Your task to perform on an android device: toggle show notifications on the lock screen Image 0: 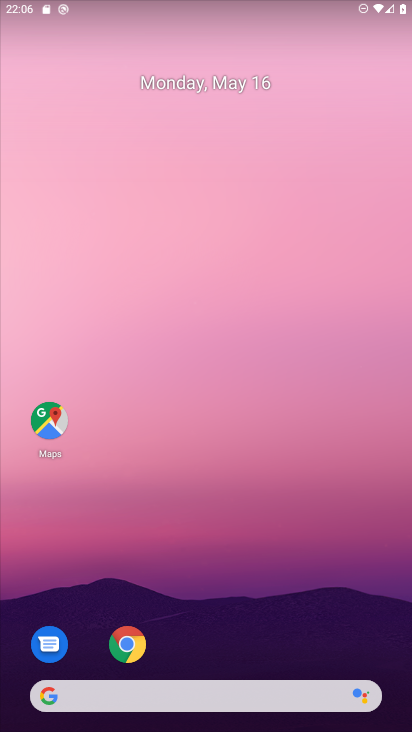
Step 0: drag from (11, 618) to (221, 184)
Your task to perform on an android device: toggle show notifications on the lock screen Image 1: 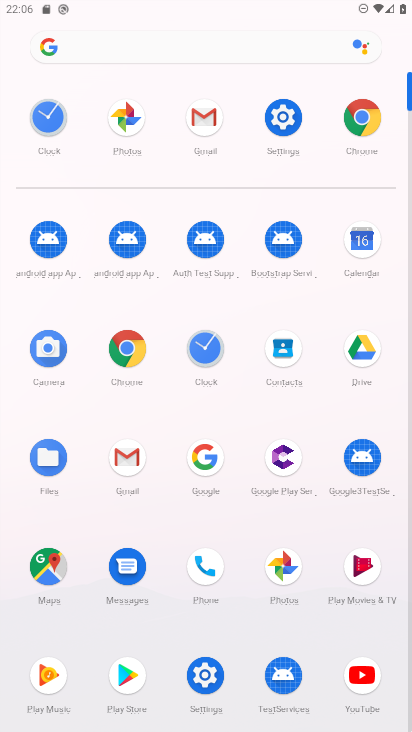
Step 1: click (286, 122)
Your task to perform on an android device: toggle show notifications on the lock screen Image 2: 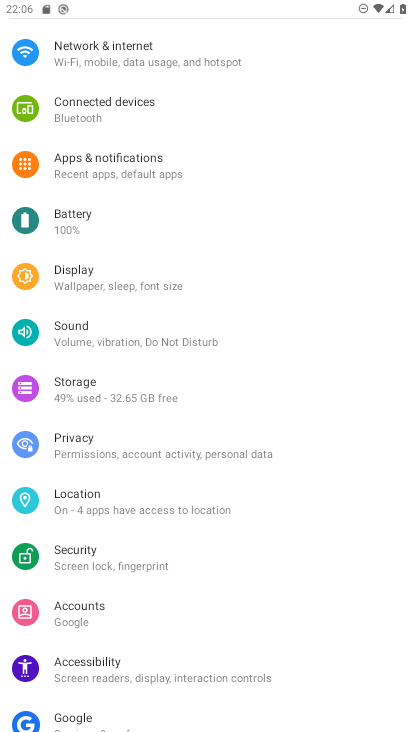
Step 2: click (134, 174)
Your task to perform on an android device: toggle show notifications on the lock screen Image 3: 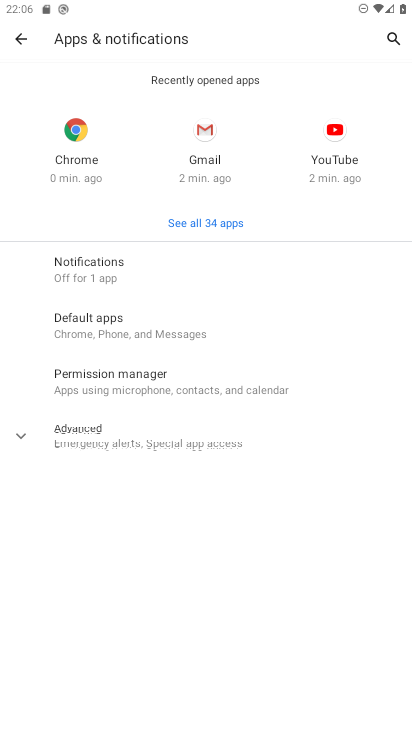
Step 3: click (107, 261)
Your task to perform on an android device: toggle show notifications on the lock screen Image 4: 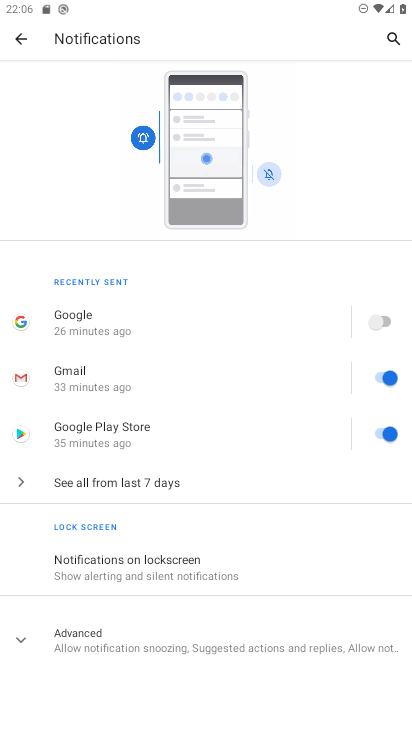
Step 4: click (134, 563)
Your task to perform on an android device: toggle show notifications on the lock screen Image 5: 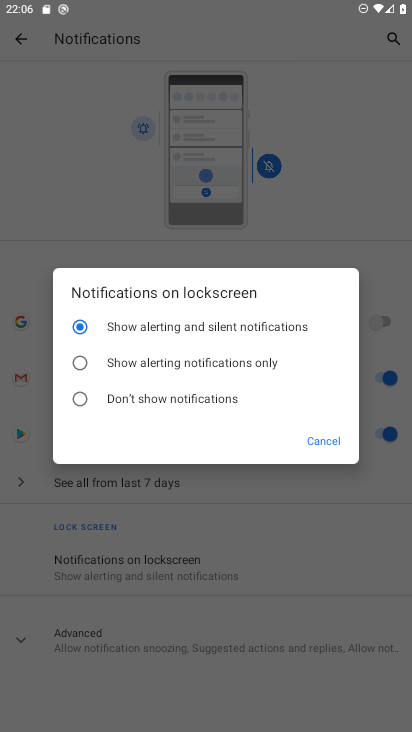
Step 5: click (82, 396)
Your task to perform on an android device: toggle show notifications on the lock screen Image 6: 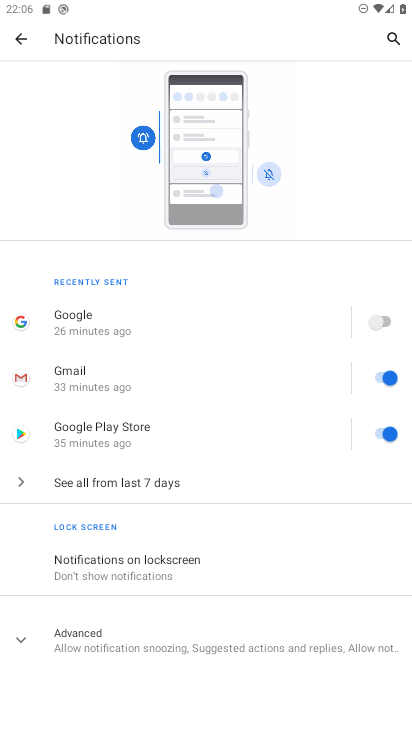
Step 6: task complete